Your task to perform on an android device: turn on data saver in the chrome app Image 0: 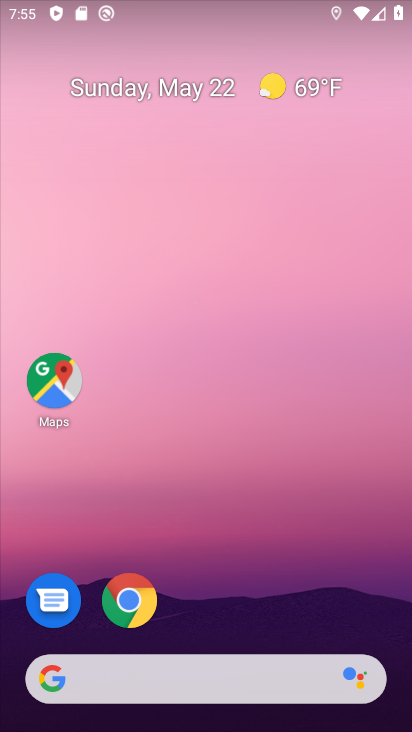
Step 0: click (134, 600)
Your task to perform on an android device: turn on data saver in the chrome app Image 1: 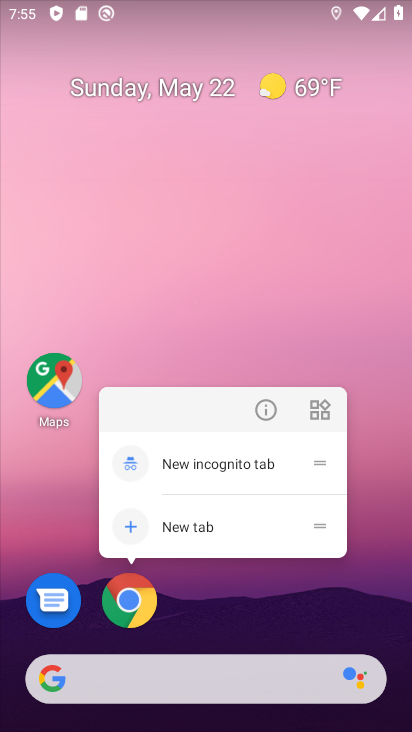
Step 1: click (216, 615)
Your task to perform on an android device: turn on data saver in the chrome app Image 2: 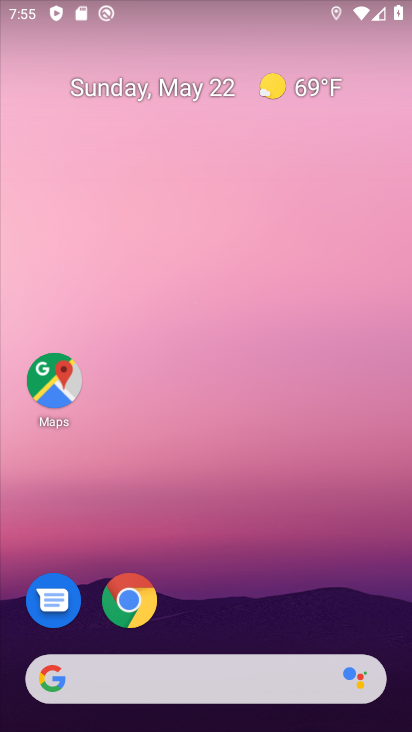
Step 2: click (128, 602)
Your task to perform on an android device: turn on data saver in the chrome app Image 3: 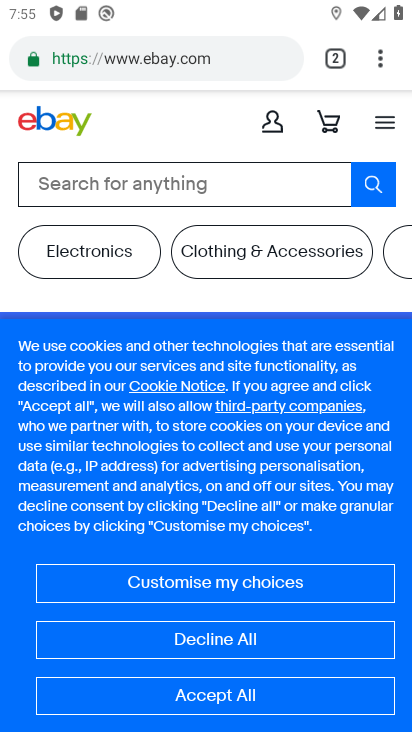
Step 3: click (374, 56)
Your task to perform on an android device: turn on data saver in the chrome app Image 4: 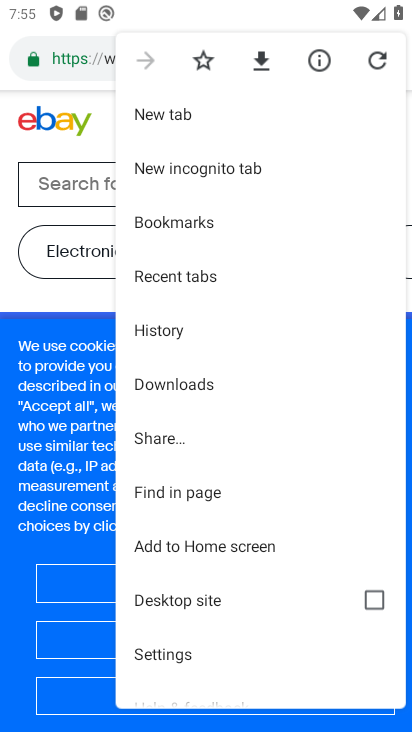
Step 4: click (178, 664)
Your task to perform on an android device: turn on data saver in the chrome app Image 5: 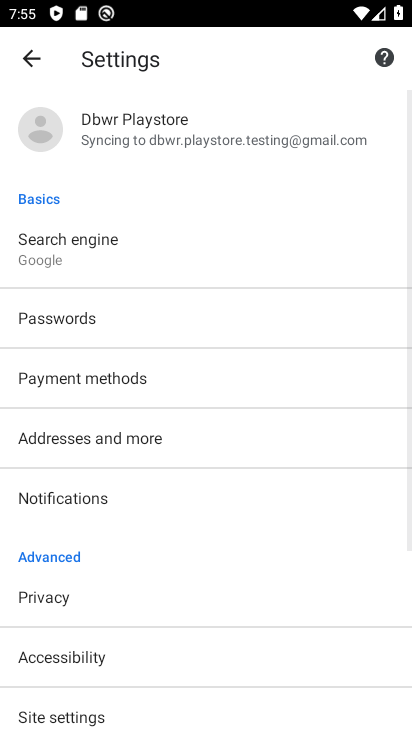
Step 5: drag from (102, 661) to (128, 352)
Your task to perform on an android device: turn on data saver in the chrome app Image 6: 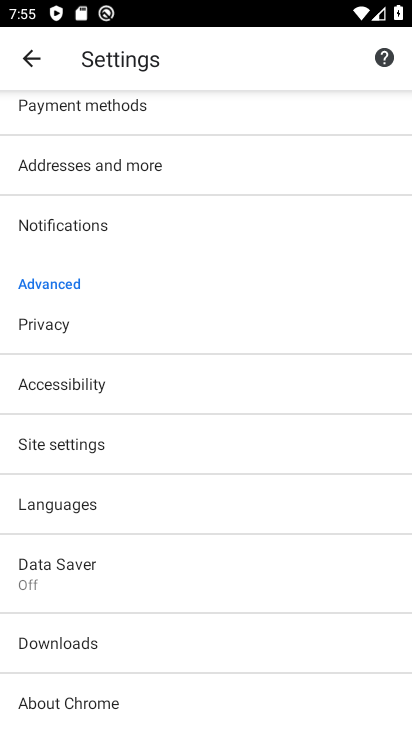
Step 6: click (69, 591)
Your task to perform on an android device: turn on data saver in the chrome app Image 7: 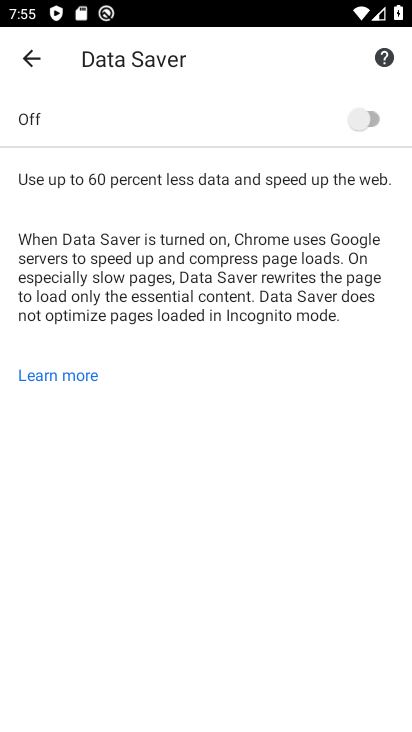
Step 7: click (363, 107)
Your task to perform on an android device: turn on data saver in the chrome app Image 8: 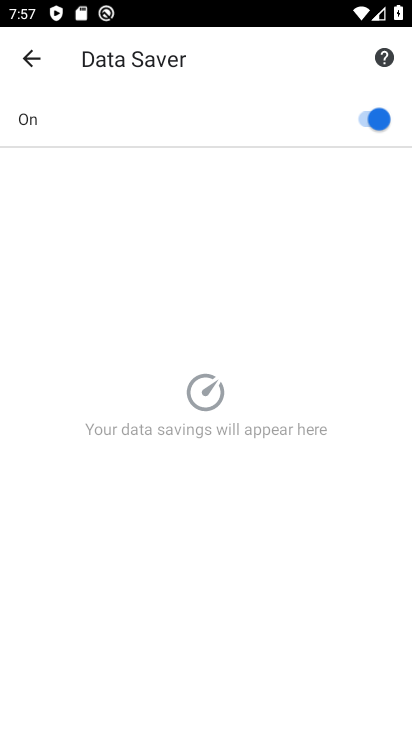
Step 8: task complete